Your task to perform on an android device: Open Wikipedia Image 0: 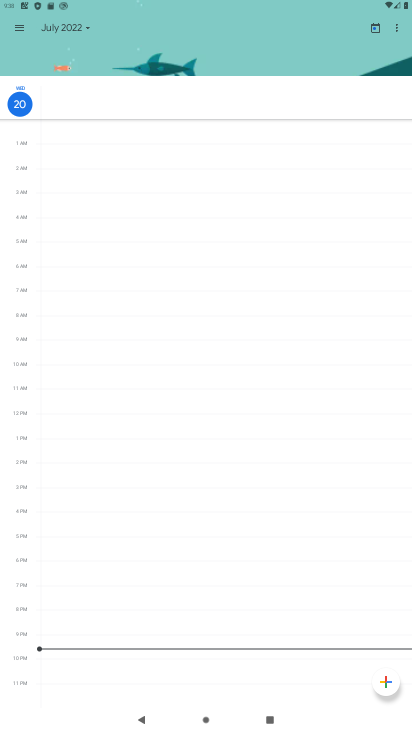
Step 0: press home button
Your task to perform on an android device: Open Wikipedia Image 1: 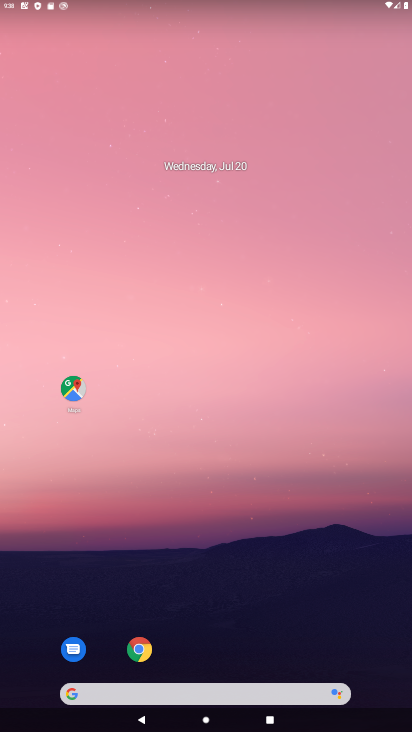
Step 1: drag from (249, 642) to (229, 5)
Your task to perform on an android device: Open Wikipedia Image 2: 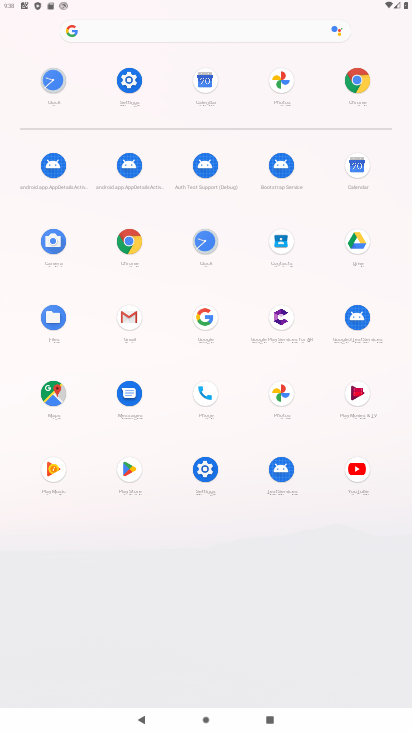
Step 2: click (131, 84)
Your task to perform on an android device: Open Wikipedia Image 3: 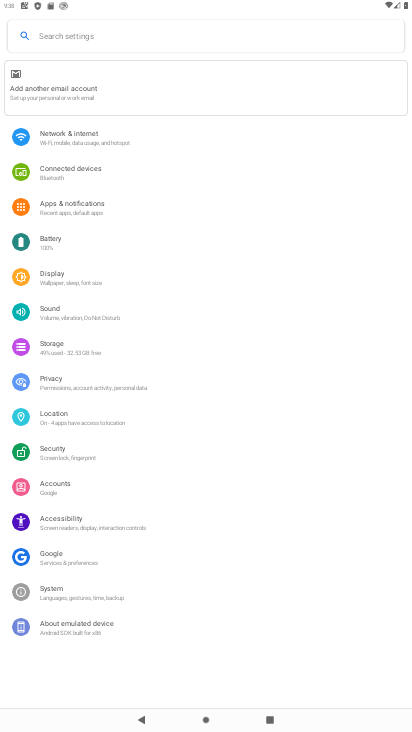
Step 3: task complete